Your task to perform on an android device: change the clock display to show seconds Image 0: 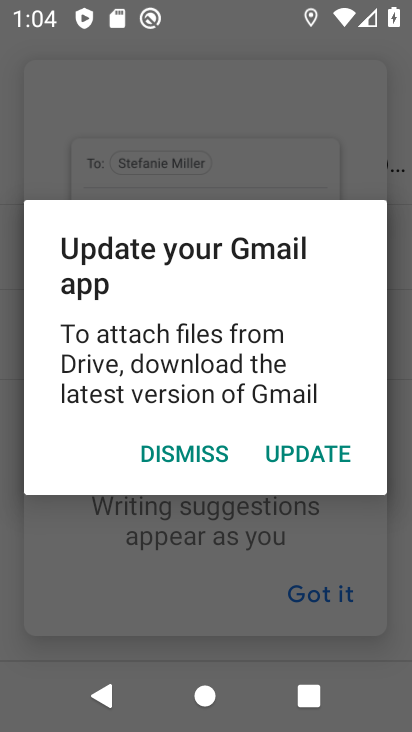
Step 0: press home button
Your task to perform on an android device: change the clock display to show seconds Image 1: 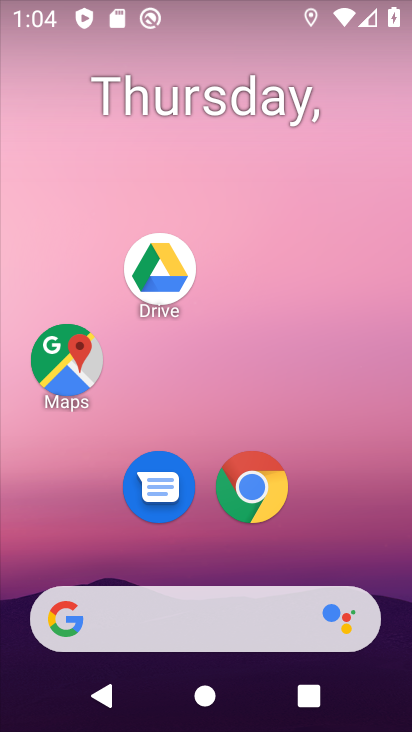
Step 1: drag from (214, 569) to (138, 66)
Your task to perform on an android device: change the clock display to show seconds Image 2: 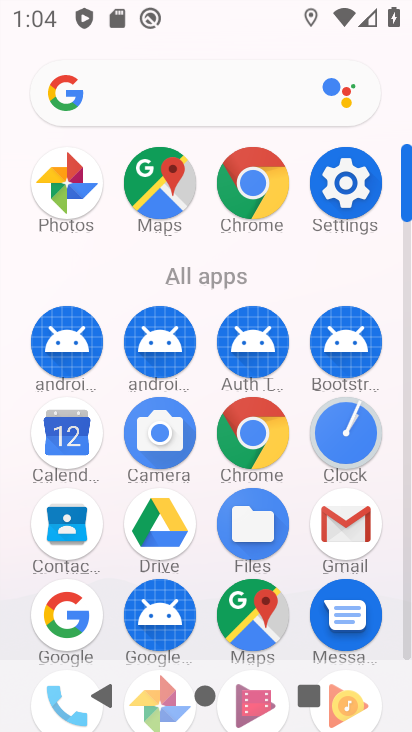
Step 2: click (343, 450)
Your task to perform on an android device: change the clock display to show seconds Image 3: 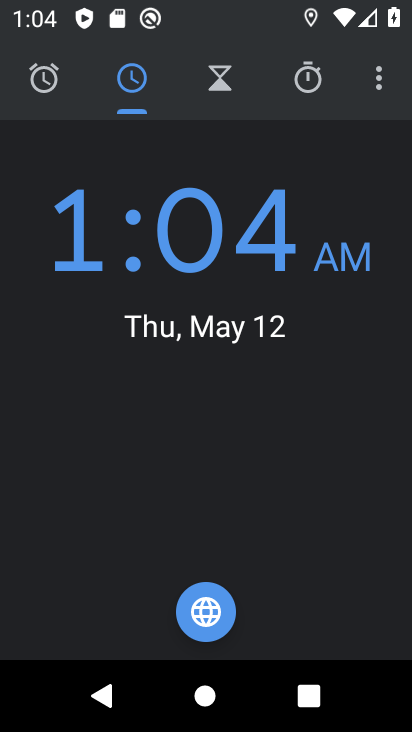
Step 3: click (375, 81)
Your task to perform on an android device: change the clock display to show seconds Image 4: 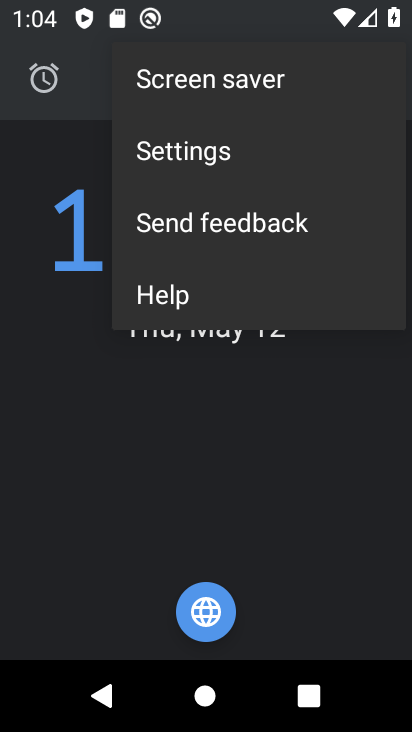
Step 4: click (166, 162)
Your task to perform on an android device: change the clock display to show seconds Image 5: 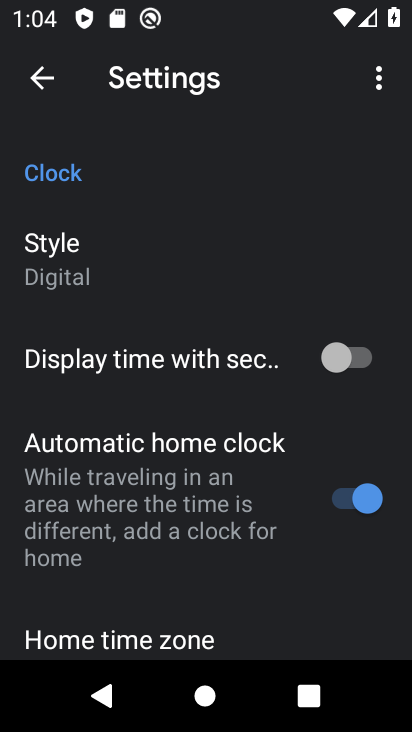
Step 5: click (328, 352)
Your task to perform on an android device: change the clock display to show seconds Image 6: 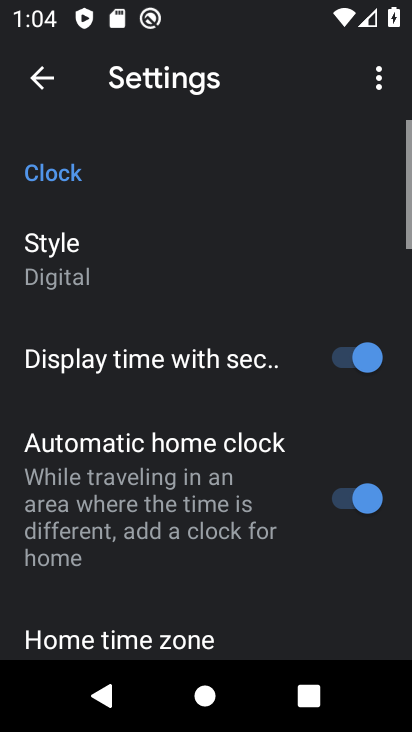
Step 6: task complete